Your task to perform on an android device: What's the weather going to be tomorrow? Image 0: 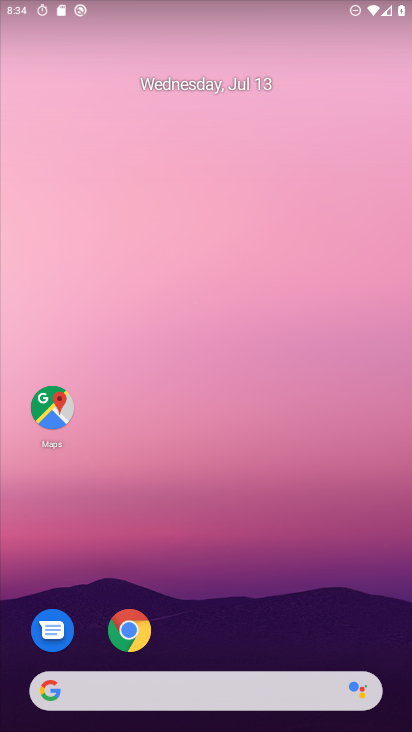
Step 0: drag from (376, 616) to (287, 76)
Your task to perform on an android device: What's the weather going to be tomorrow? Image 1: 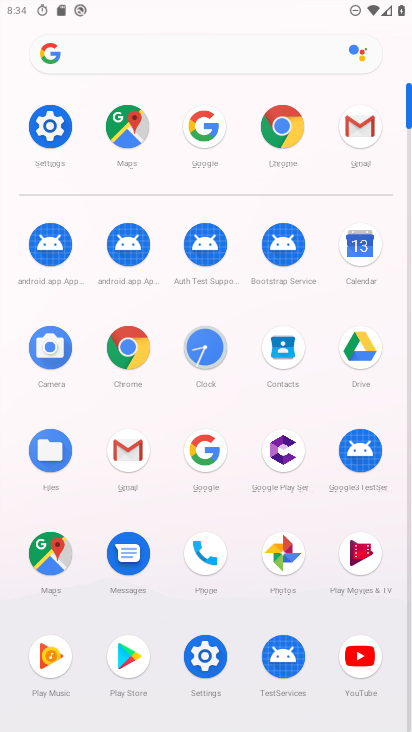
Step 1: click (212, 454)
Your task to perform on an android device: What's the weather going to be tomorrow? Image 2: 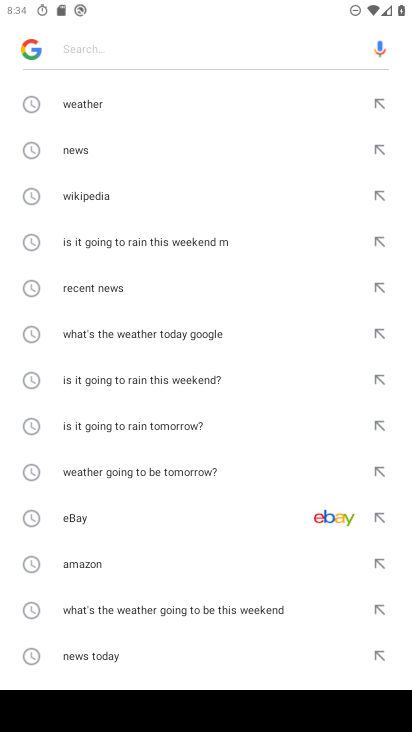
Step 2: click (128, 470)
Your task to perform on an android device: What's the weather going to be tomorrow? Image 3: 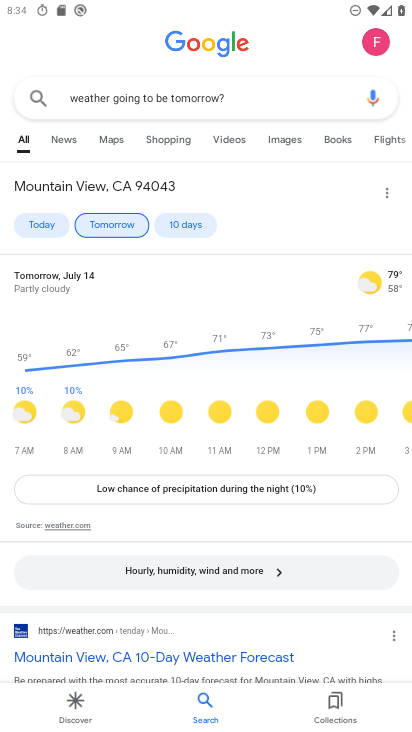
Step 3: task complete